Your task to perform on an android device: Open the calendar and show me this week's events? Image 0: 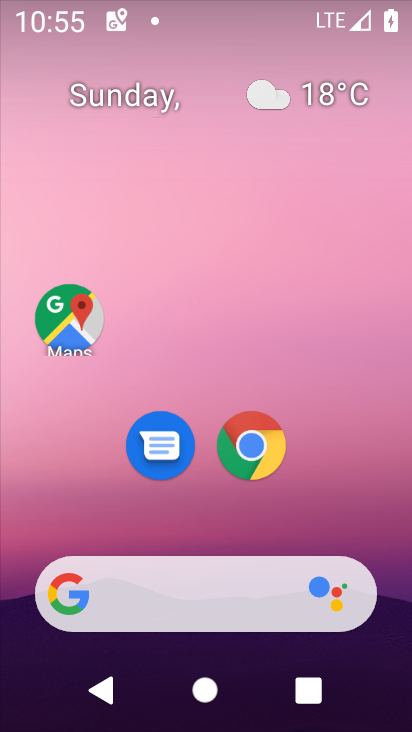
Step 0: click (238, 59)
Your task to perform on an android device: Open the calendar and show me this week's events? Image 1: 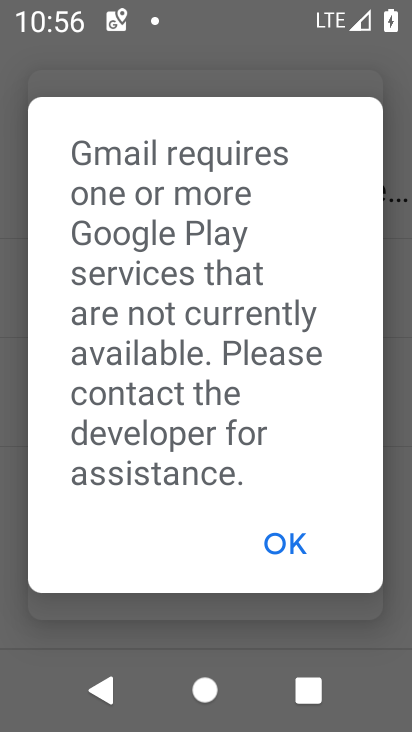
Step 1: press home button
Your task to perform on an android device: Open the calendar and show me this week's events? Image 2: 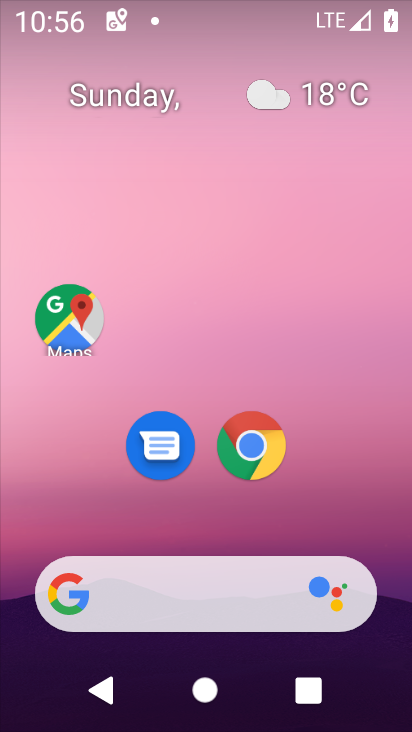
Step 2: drag from (205, 527) to (262, 88)
Your task to perform on an android device: Open the calendar and show me this week's events? Image 3: 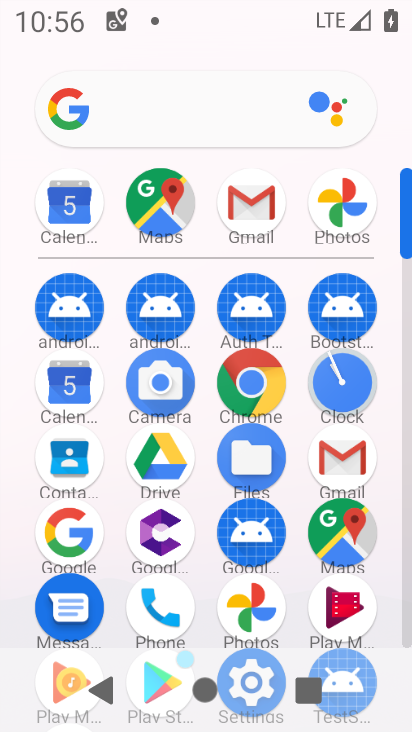
Step 3: click (72, 379)
Your task to perform on an android device: Open the calendar and show me this week's events? Image 4: 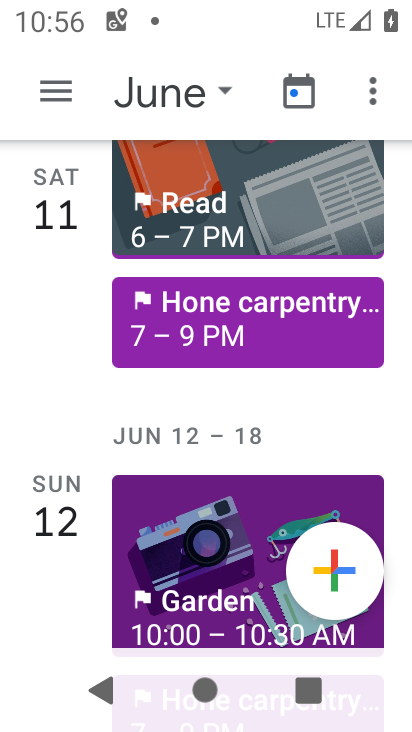
Step 4: click (54, 107)
Your task to perform on an android device: Open the calendar and show me this week's events? Image 5: 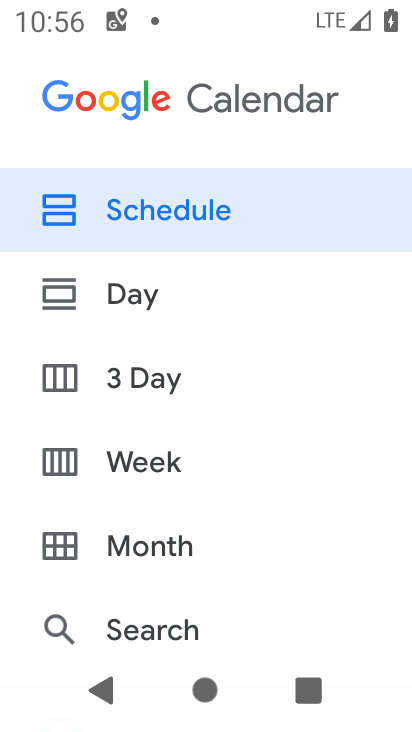
Step 5: click (108, 460)
Your task to perform on an android device: Open the calendar and show me this week's events? Image 6: 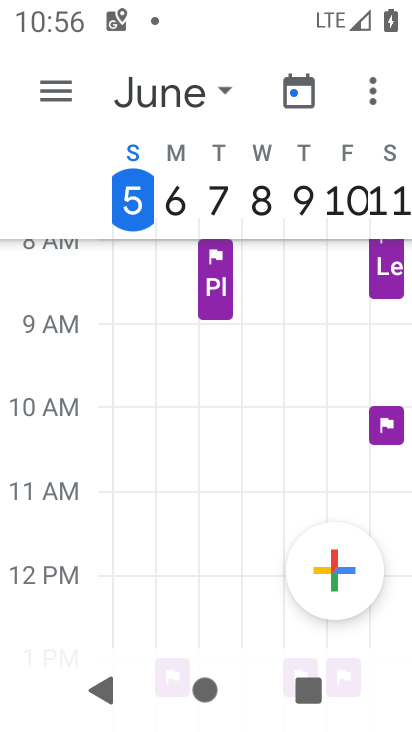
Step 6: click (134, 227)
Your task to perform on an android device: Open the calendar and show me this week's events? Image 7: 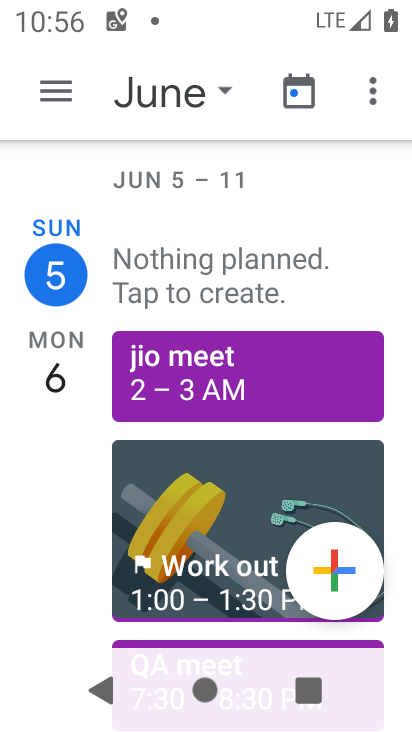
Step 7: task complete